Your task to perform on an android device: Set the phone to "Do not disturb". Image 0: 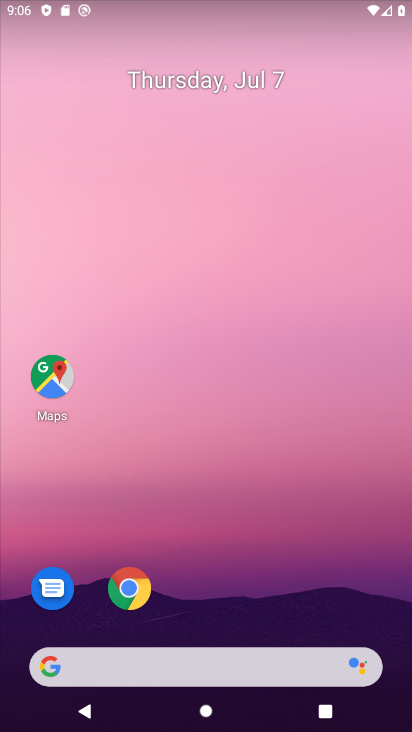
Step 0: click (256, 318)
Your task to perform on an android device: Set the phone to "Do not disturb". Image 1: 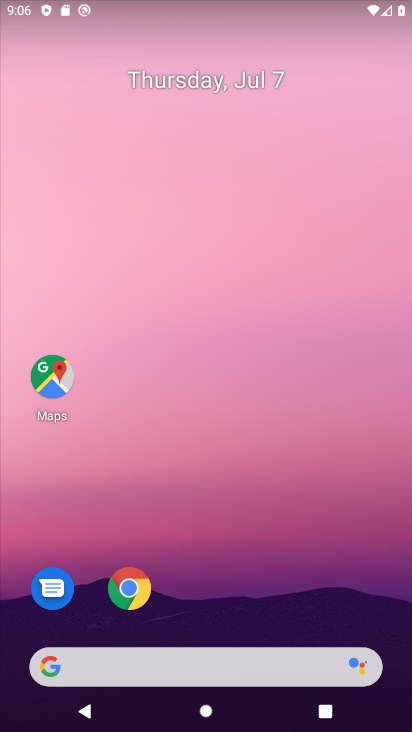
Step 1: drag from (272, 649) to (77, 29)
Your task to perform on an android device: Set the phone to "Do not disturb". Image 2: 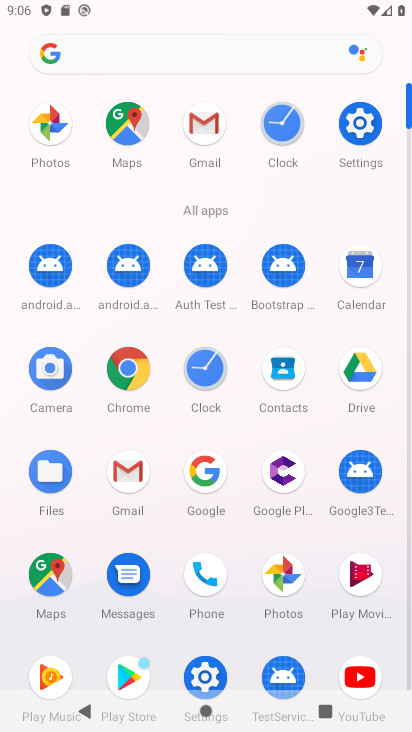
Step 2: click (354, 128)
Your task to perform on an android device: Set the phone to "Do not disturb". Image 3: 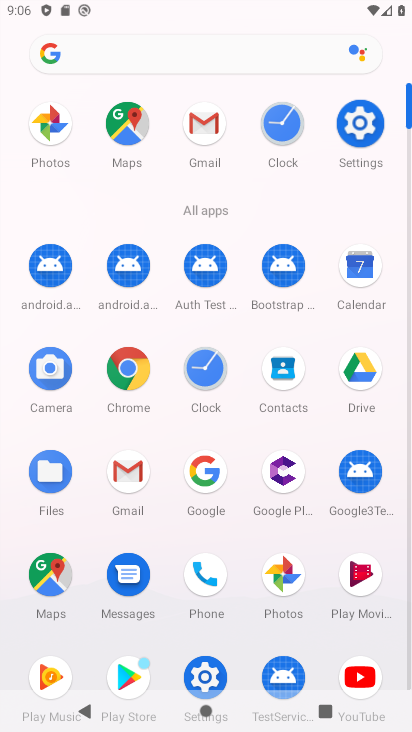
Step 3: click (355, 128)
Your task to perform on an android device: Set the phone to "Do not disturb". Image 4: 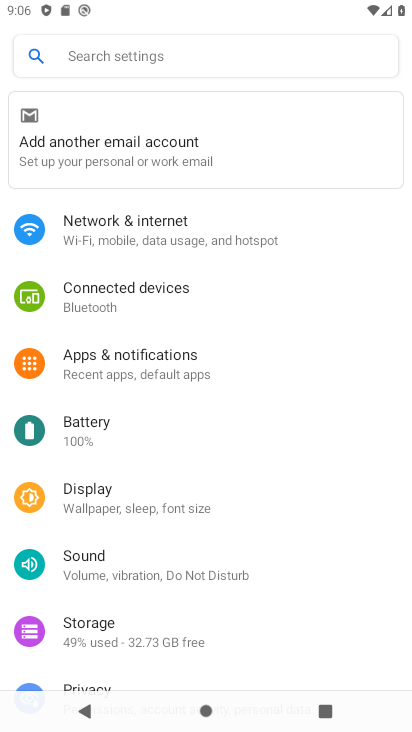
Step 4: click (104, 568)
Your task to perform on an android device: Set the phone to "Do not disturb". Image 5: 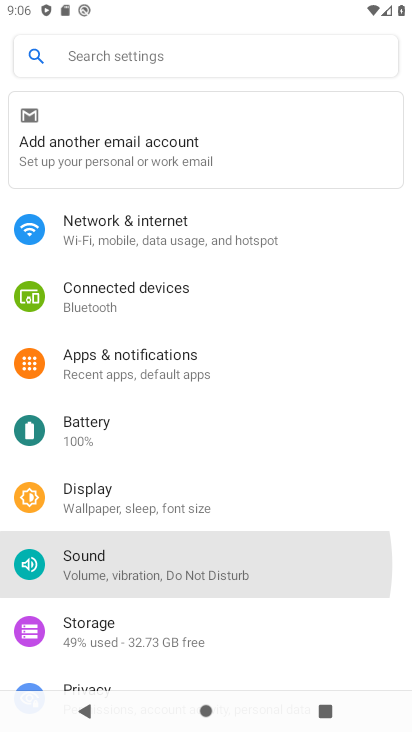
Step 5: click (104, 568)
Your task to perform on an android device: Set the phone to "Do not disturb". Image 6: 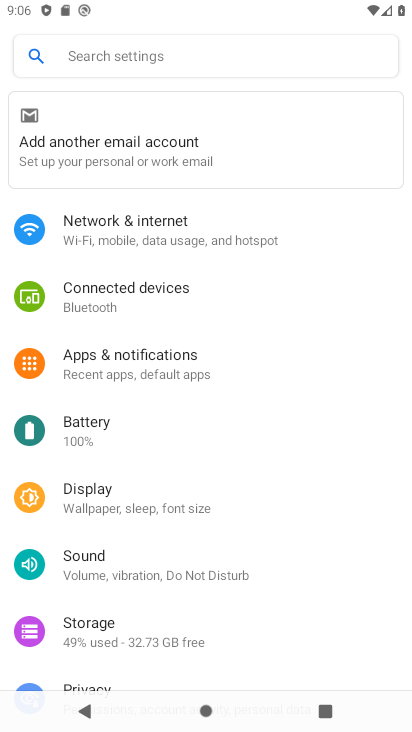
Step 6: click (101, 567)
Your task to perform on an android device: Set the phone to "Do not disturb". Image 7: 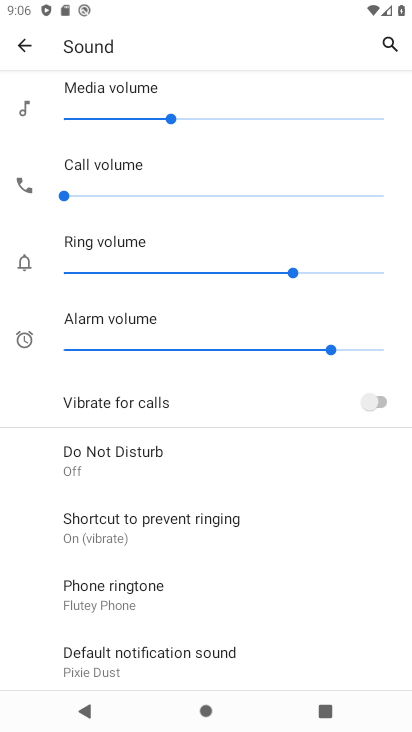
Step 7: click (20, 43)
Your task to perform on an android device: Set the phone to "Do not disturb". Image 8: 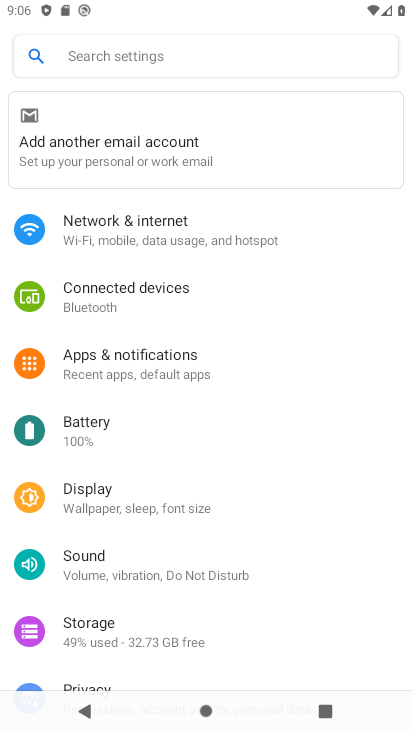
Step 8: click (150, 577)
Your task to perform on an android device: Set the phone to "Do not disturb". Image 9: 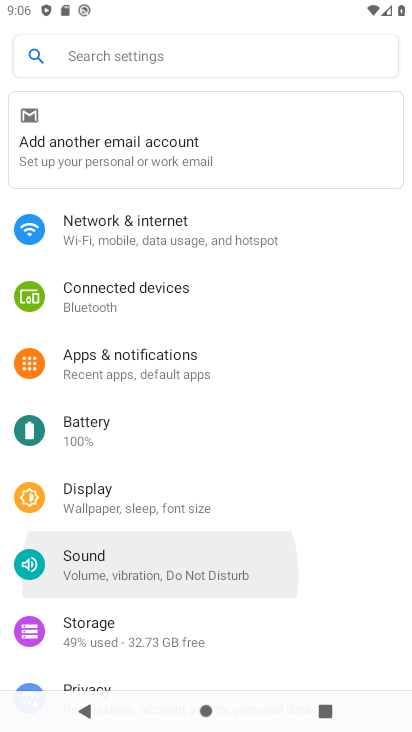
Step 9: click (151, 575)
Your task to perform on an android device: Set the phone to "Do not disturb". Image 10: 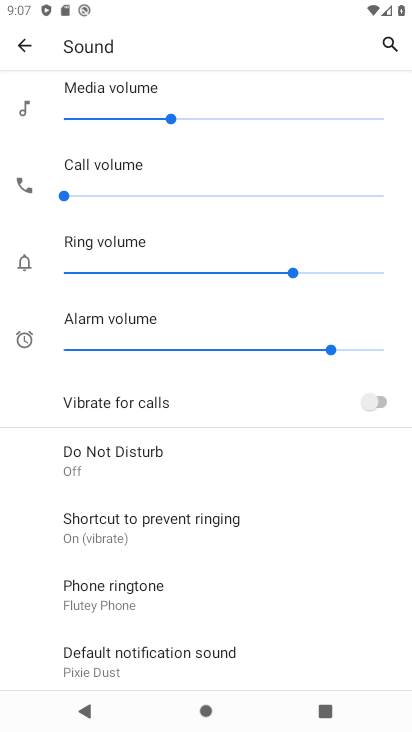
Step 10: click (90, 456)
Your task to perform on an android device: Set the phone to "Do not disturb". Image 11: 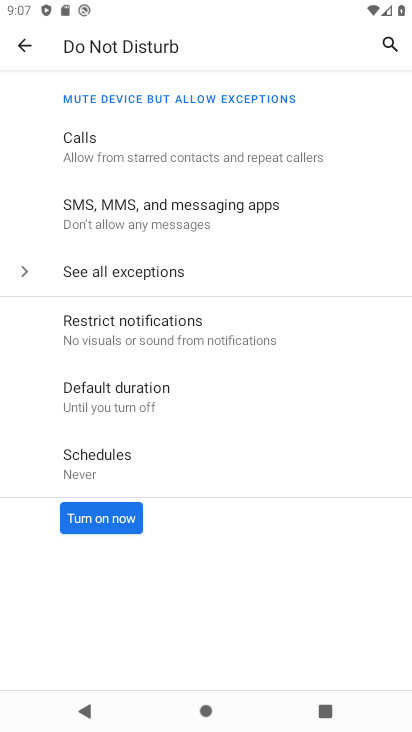
Step 11: click (94, 518)
Your task to perform on an android device: Set the phone to "Do not disturb". Image 12: 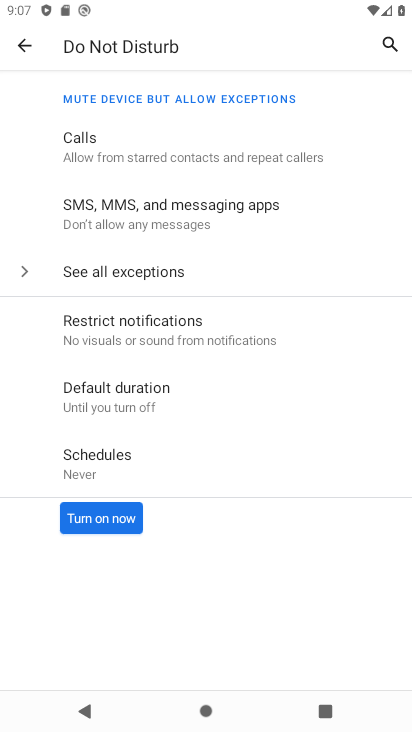
Step 12: click (94, 518)
Your task to perform on an android device: Set the phone to "Do not disturb". Image 13: 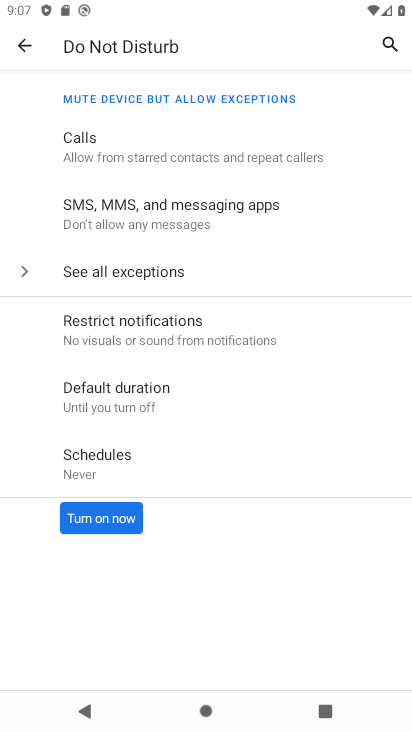
Step 13: task complete